Your task to perform on an android device: Open Yahoo.com Image 0: 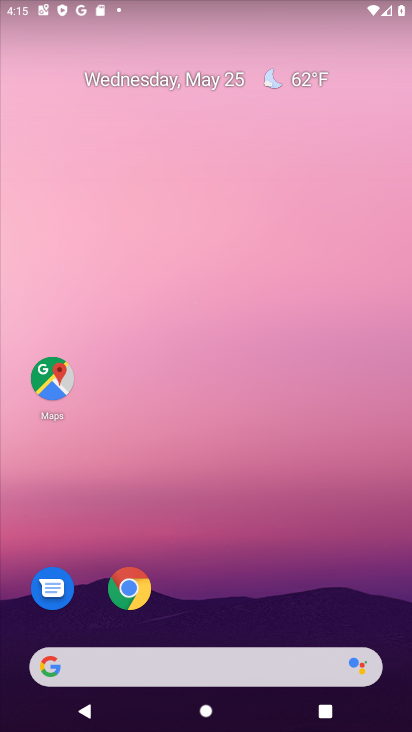
Step 0: click (136, 576)
Your task to perform on an android device: Open Yahoo.com Image 1: 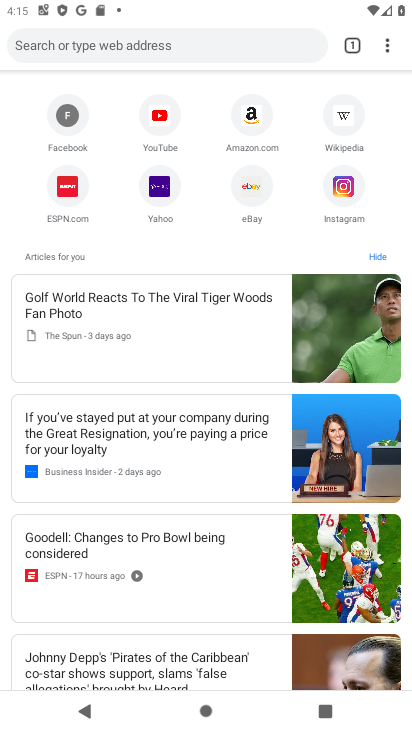
Step 1: click (163, 193)
Your task to perform on an android device: Open Yahoo.com Image 2: 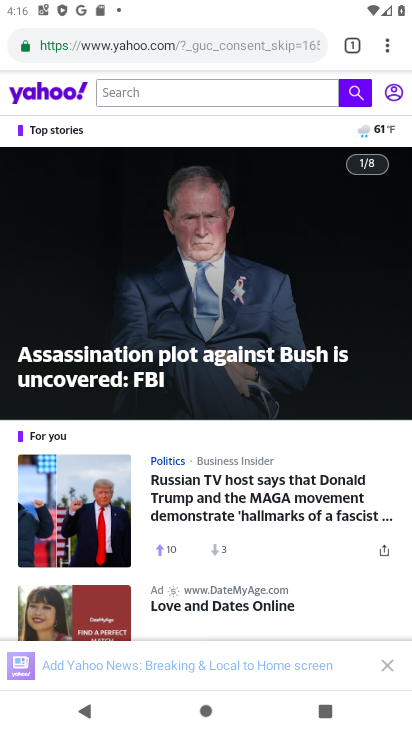
Step 2: task complete